Your task to perform on an android device: clear history in the chrome app Image 0: 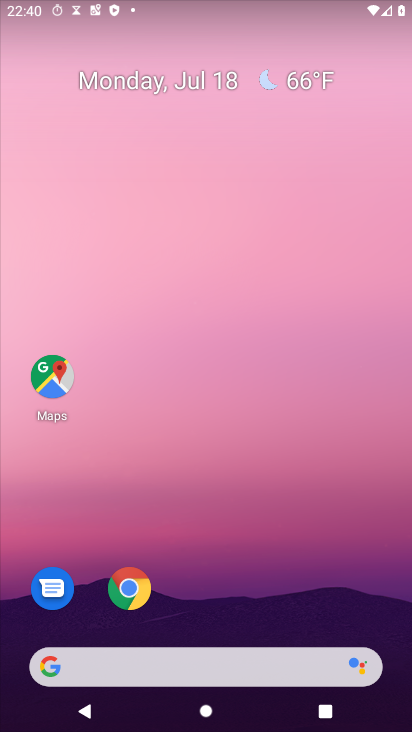
Step 0: press home button
Your task to perform on an android device: clear history in the chrome app Image 1: 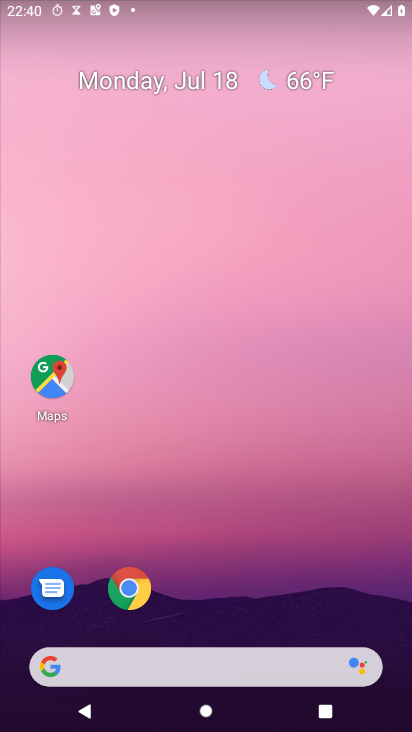
Step 1: click (133, 591)
Your task to perform on an android device: clear history in the chrome app Image 2: 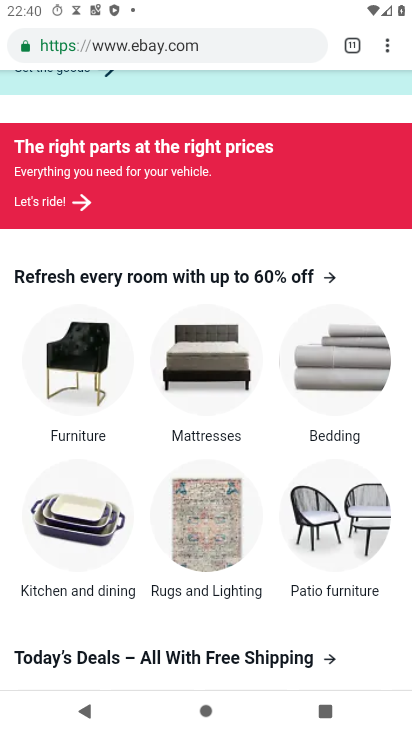
Step 2: drag from (385, 43) to (284, 258)
Your task to perform on an android device: clear history in the chrome app Image 3: 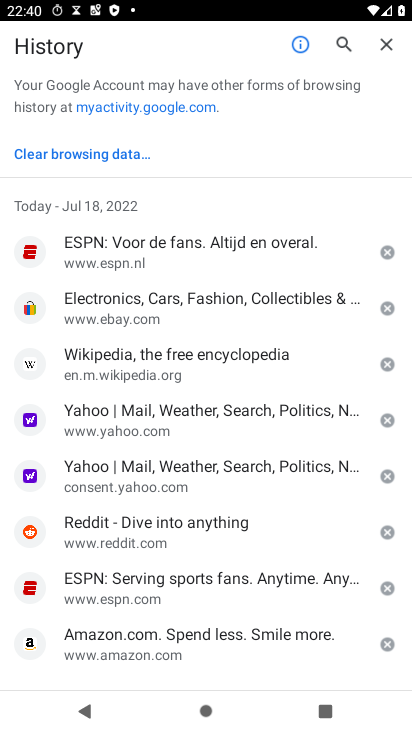
Step 3: click (112, 150)
Your task to perform on an android device: clear history in the chrome app Image 4: 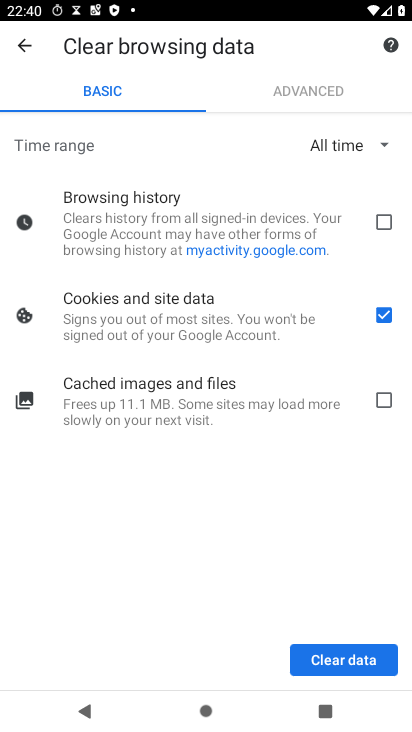
Step 4: click (387, 216)
Your task to perform on an android device: clear history in the chrome app Image 5: 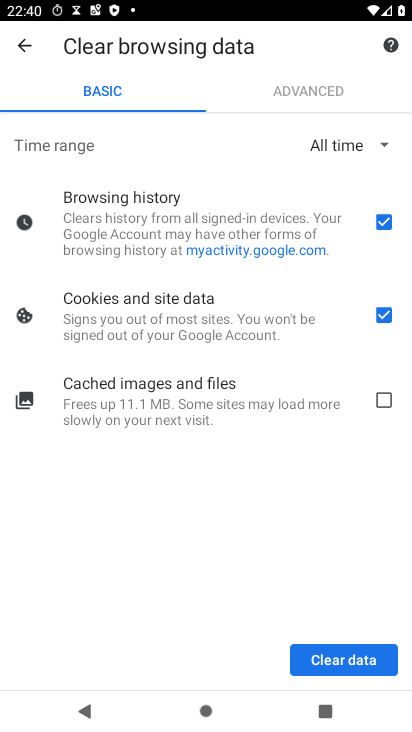
Step 5: click (379, 401)
Your task to perform on an android device: clear history in the chrome app Image 6: 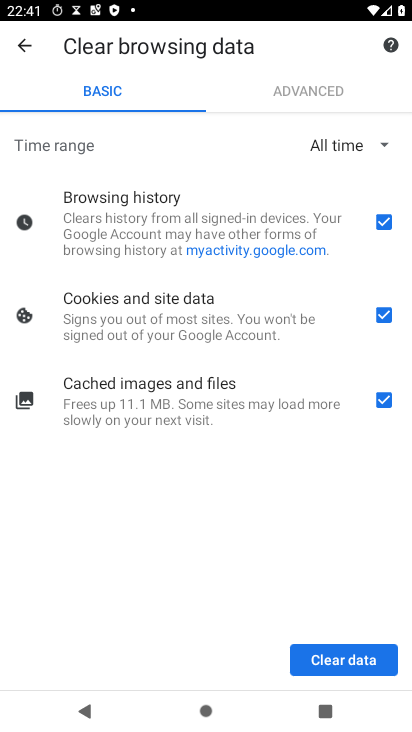
Step 6: click (341, 669)
Your task to perform on an android device: clear history in the chrome app Image 7: 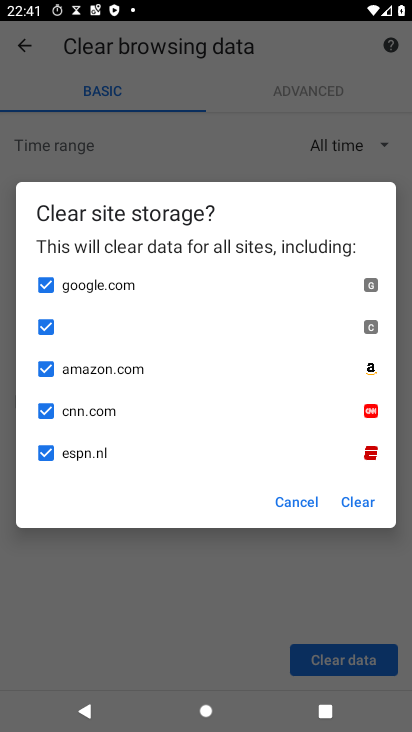
Step 7: click (363, 493)
Your task to perform on an android device: clear history in the chrome app Image 8: 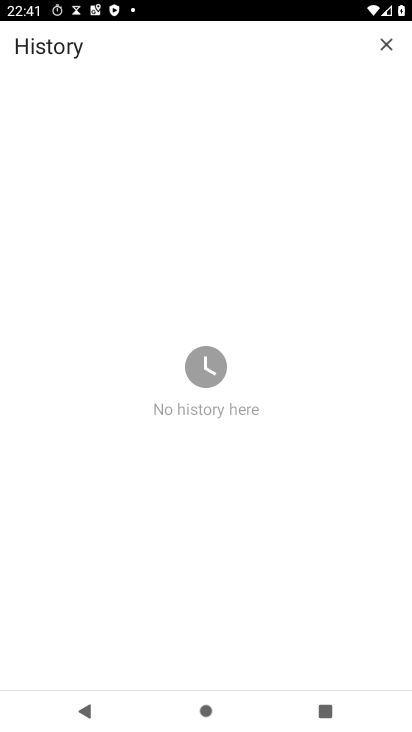
Step 8: task complete